Your task to perform on an android device: open app "Messages" (install if not already installed) and go to login screen Image 0: 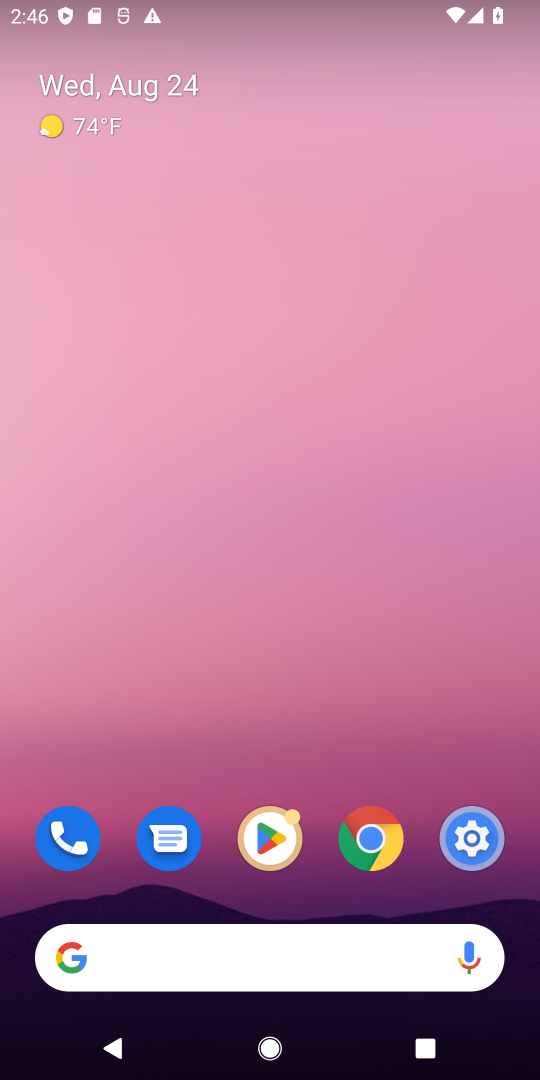
Step 0: click (151, 839)
Your task to perform on an android device: open app "Messages" (install if not already installed) and go to login screen Image 1: 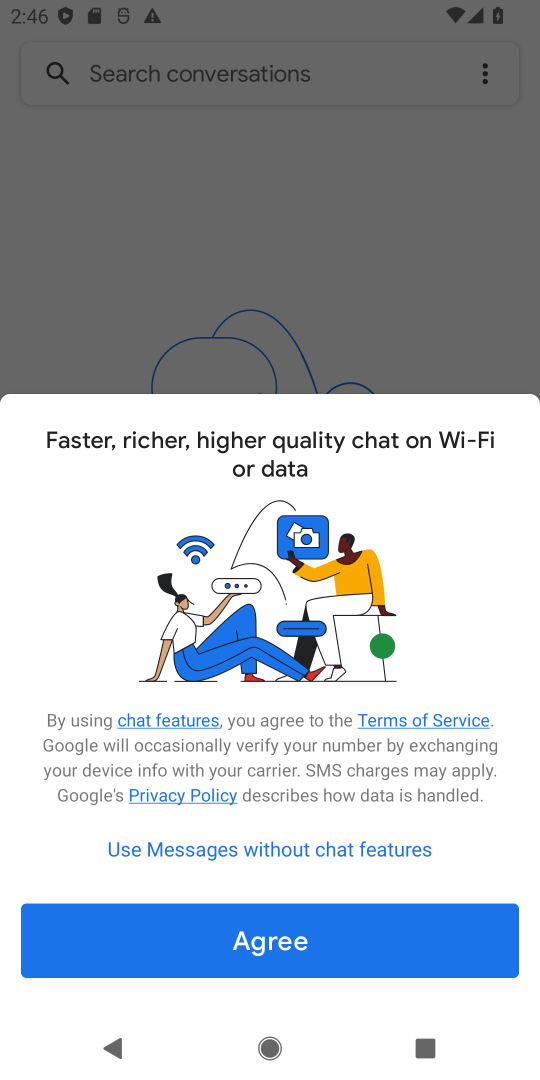
Step 1: click (169, 934)
Your task to perform on an android device: open app "Messages" (install if not already installed) and go to login screen Image 2: 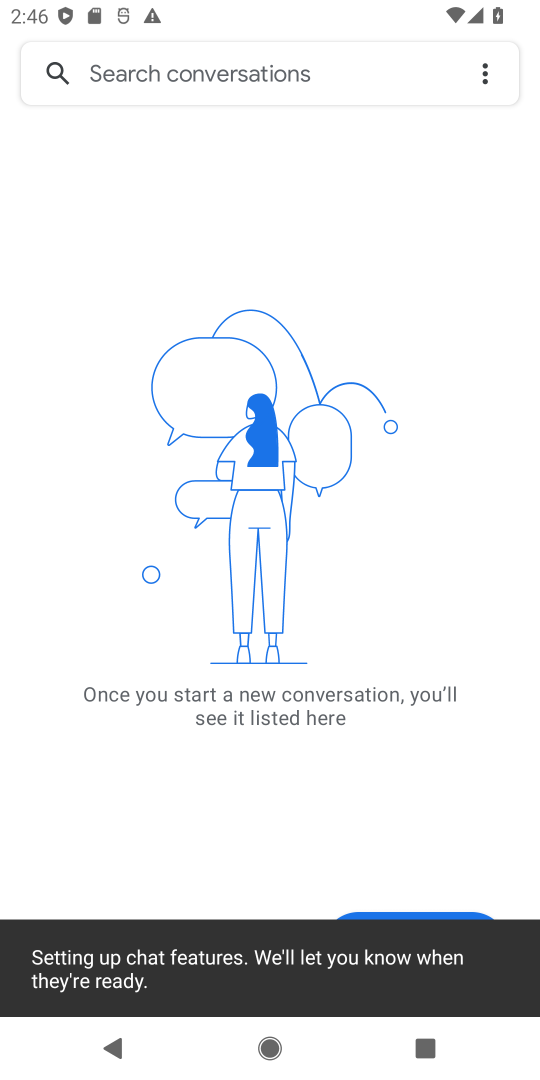
Step 2: click (482, 88)
Your task to perform on an android device: open app "Messages" (install if not already installed) and go to login screen Image 3: 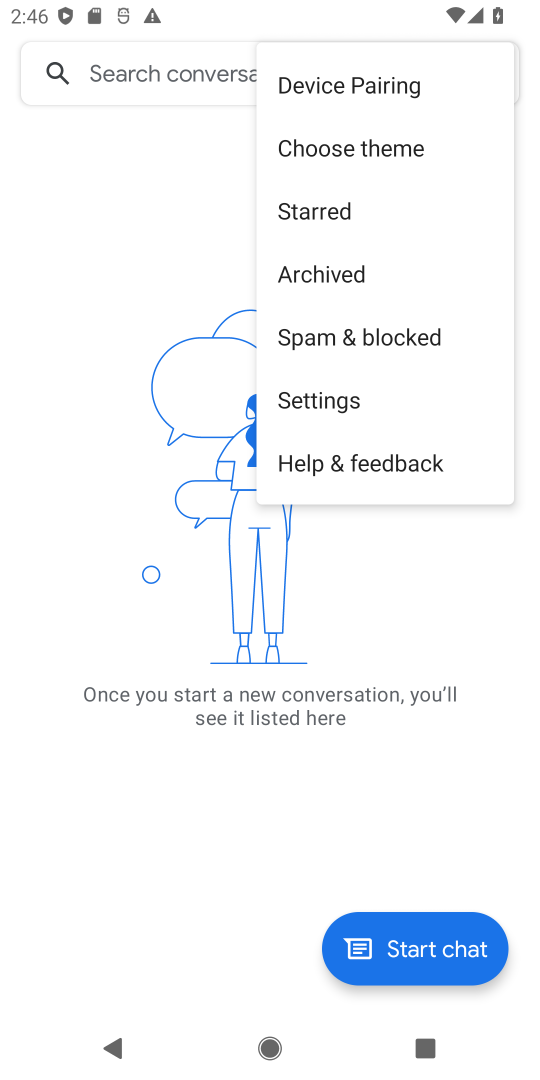
Step 3: click (335, 401)
Your task to perform on an android device: open app "Messages" (install if not already installed) and go to login screen Image 4: 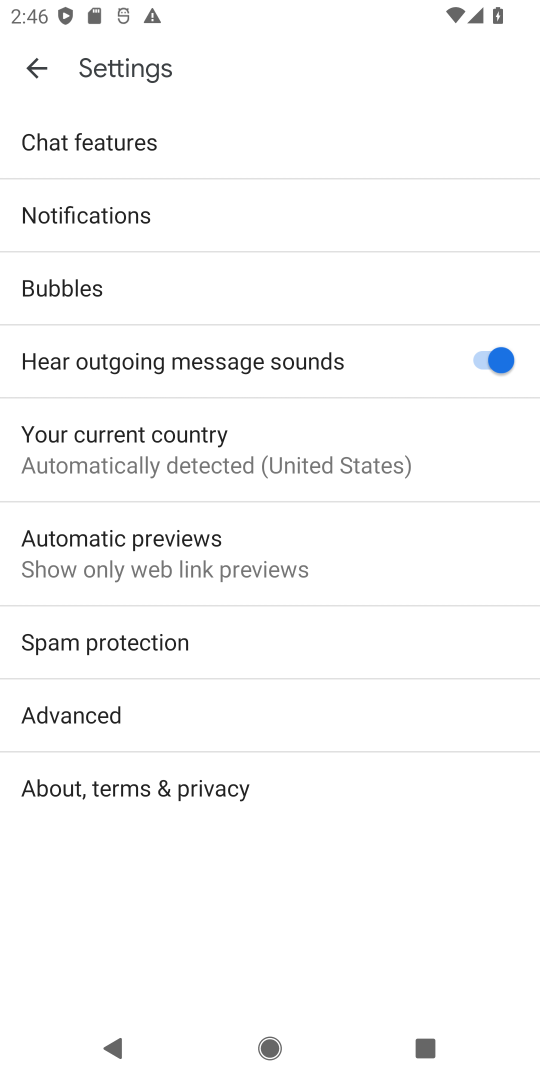
Step 4: click (65, 804)
Your task to perform on an android device: open app "Messages" (install if not already installed) and go to login screen Image 5: 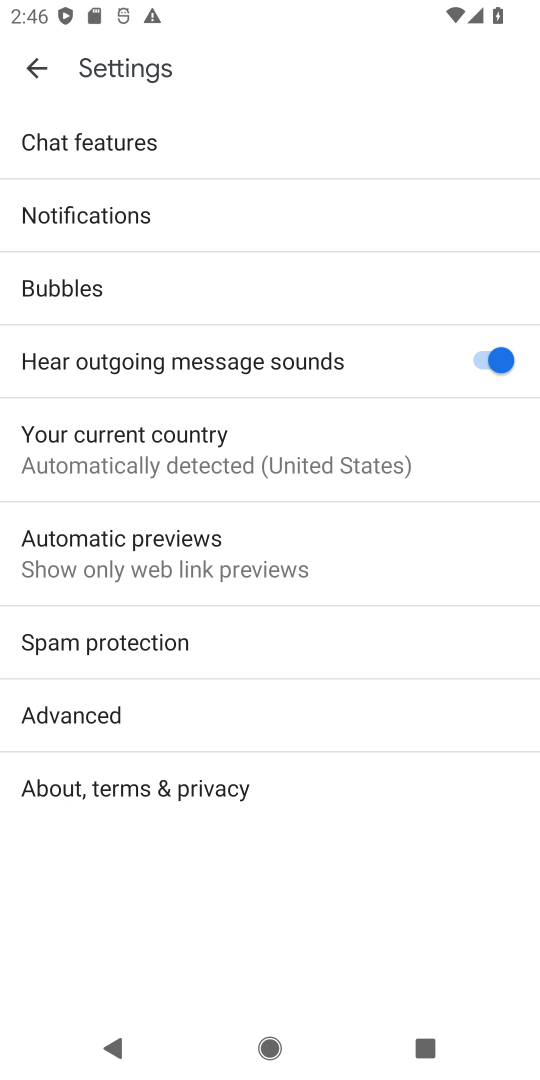
Step 5: click (65, 804)
Your task to perform on an android device: open app "Messages" (install if not already installed) and go to login screen Image 6: 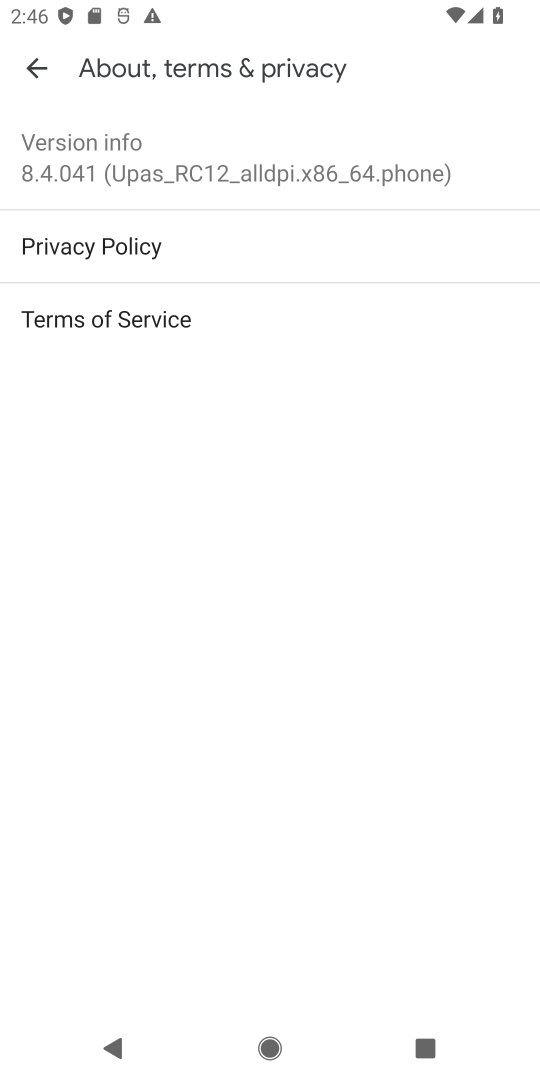
Step 6: click (28, 60)
Your task to perform on an android device: open app "Messages" (install if not already installed) and go to login screen Image 7: 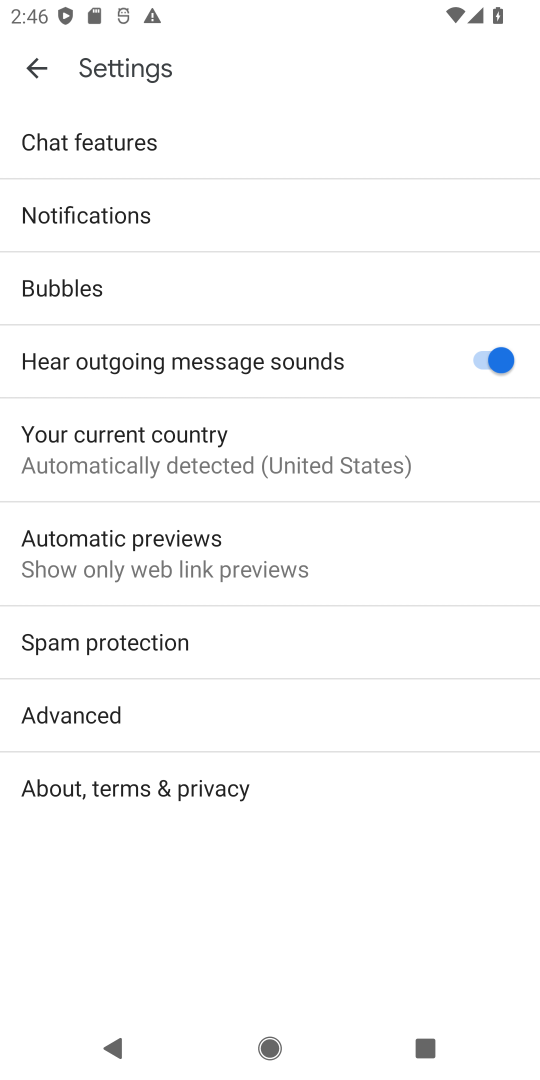
Step 7: task complete